Your task to perform on an android device: change your default location settings in chrome Image 0: 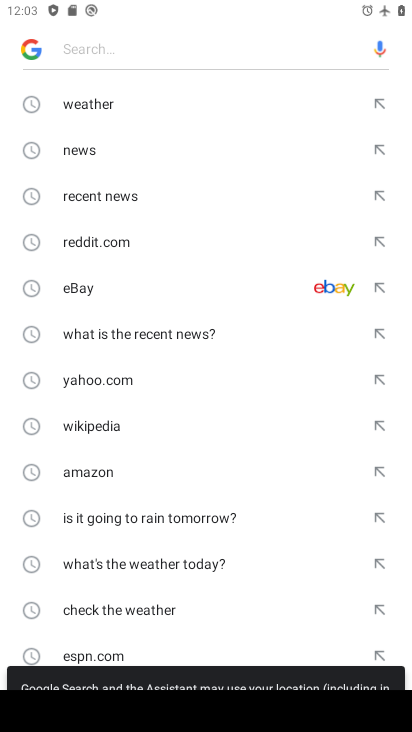
Step 0: press home button
Your task to perform on an android device: change your default location settings in chrome Image 1: 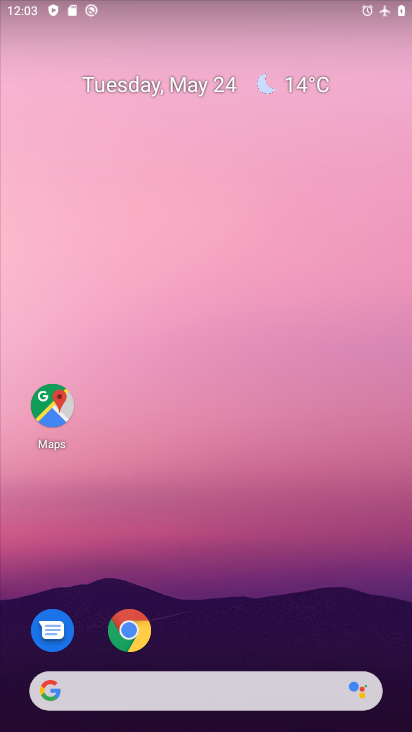
Step 1: drag from (381, 629) to (350, 182)
Your task to perform on an android device: change your default location settings in chrome Image 2: 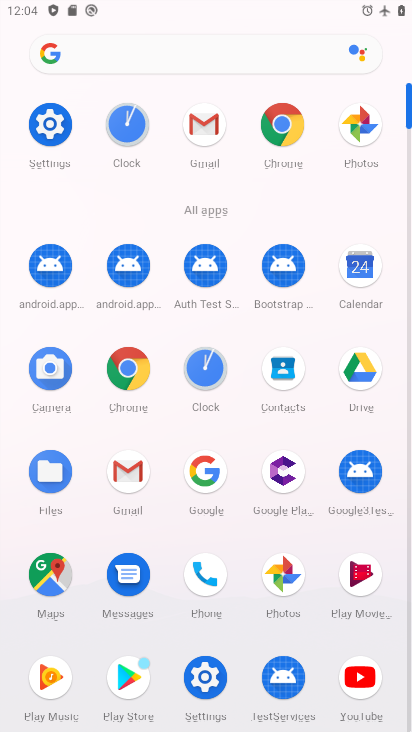
Step 2: click (212, 692)
Your task to perform on an android device: change your default location settings in chrome Image 3: 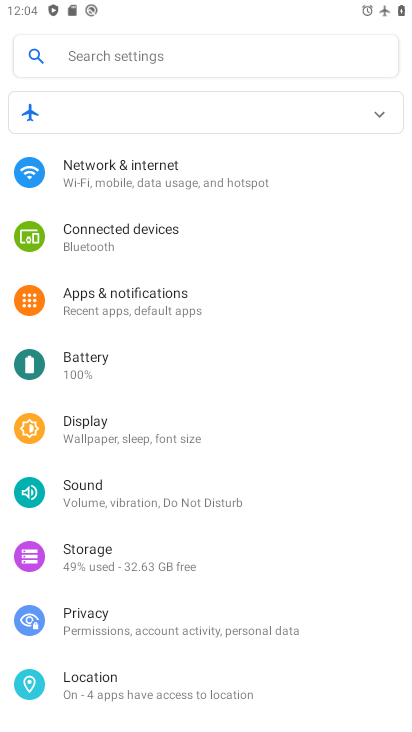
Step 3: click (234, 675)
Your task to perform on an android device: change your default location settings in chrome Image 4: 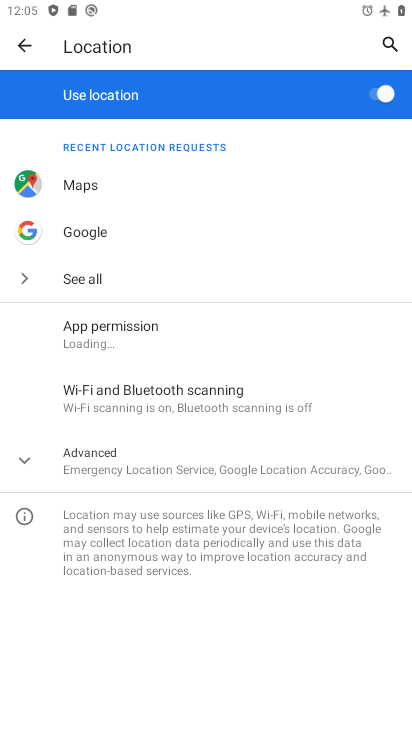
Step 4: task complete